Your task to perform on an android device: Play the last video I watched on Youtube Image 0: 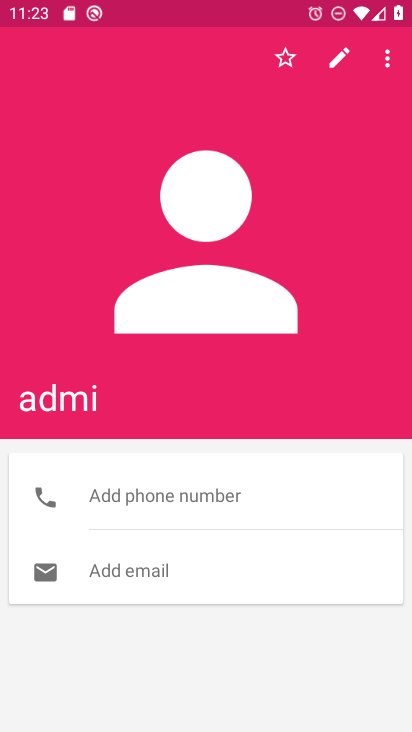
Step 0: press home button
Your task to perform on an android device: Play the last video I watched on Youtube Image 1: 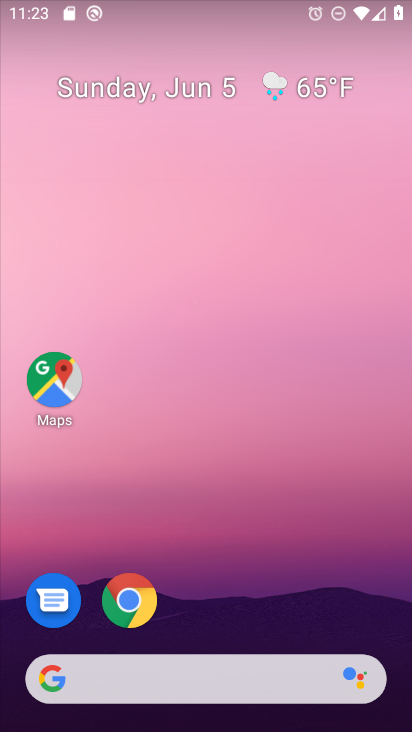
Step 1: drag from (357, 581) to (245, 64)
Your task to perform on an android device: Play the last video I watched on Youtube Image 2: 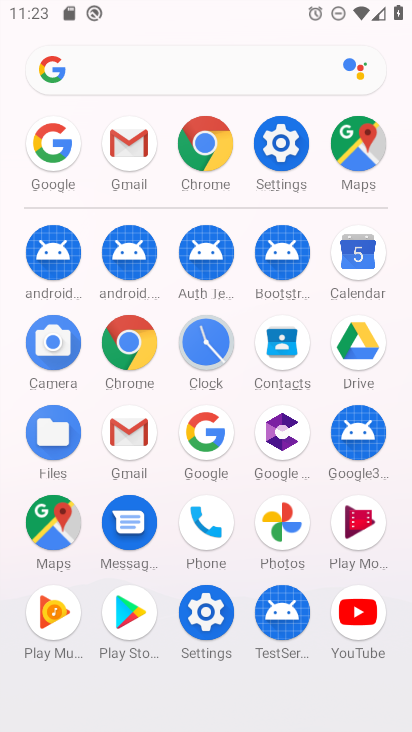
Step 2: click (363, 614)
Your task to perform on an android device: Play the last video I watched on Youtube Image 3: 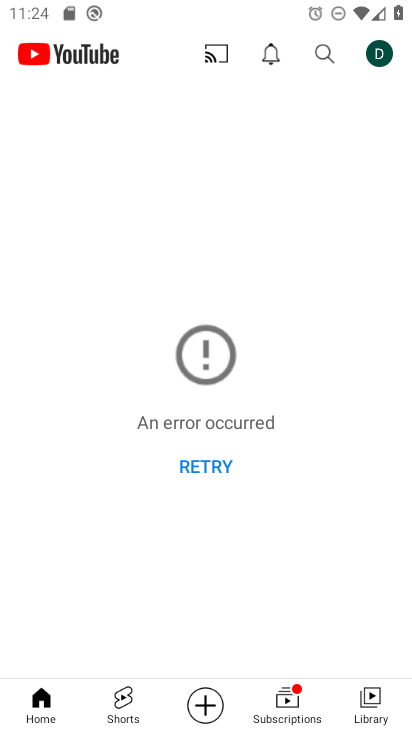
Step 3: task complete